Your task to perform on an android device: clear history in the chrome app Image 0: 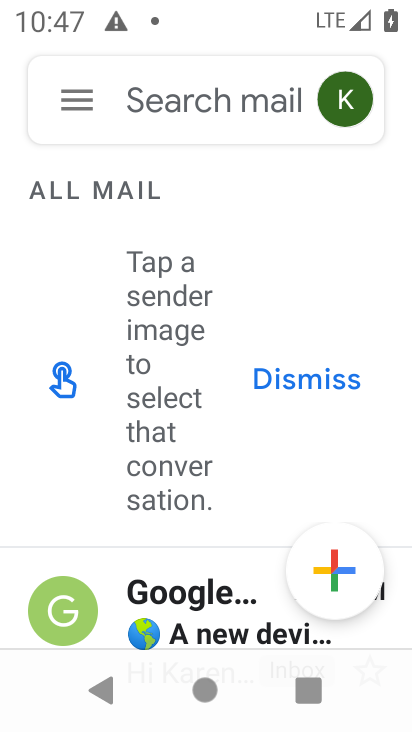
Step 0: press home button
Your task to perform on an android device: clear history in the chrome app Image 1: 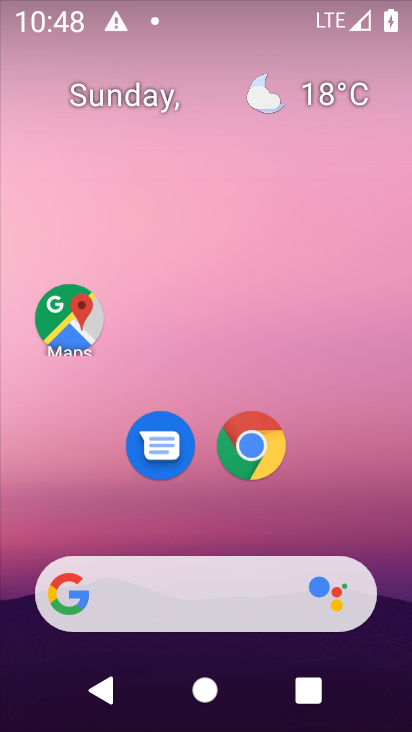
Step 1: click (240, 447)
Your task to perform on an android device: clear history in the chrome app Image 2: 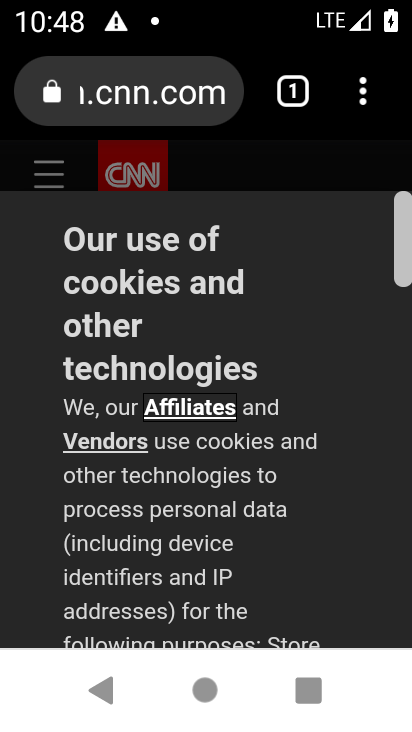
Step 2: drag from (360, 85) to (118, 291)
Your task to perform on an android device: clear history in the chrome app Image 3: 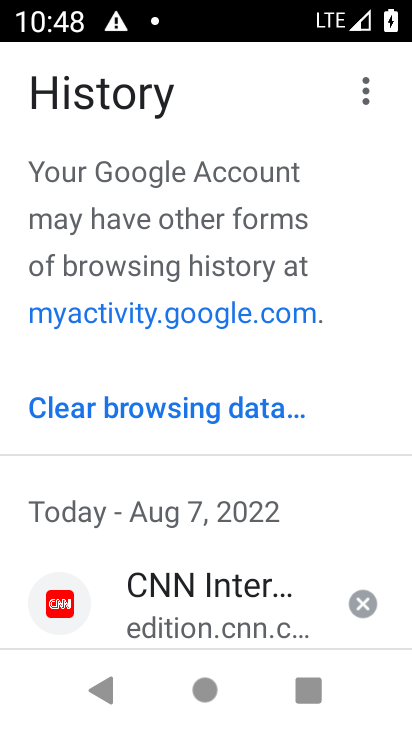
Step 3: click (157, 407)
Your task to perform on an android device: clear history in the chrome app Image 4: 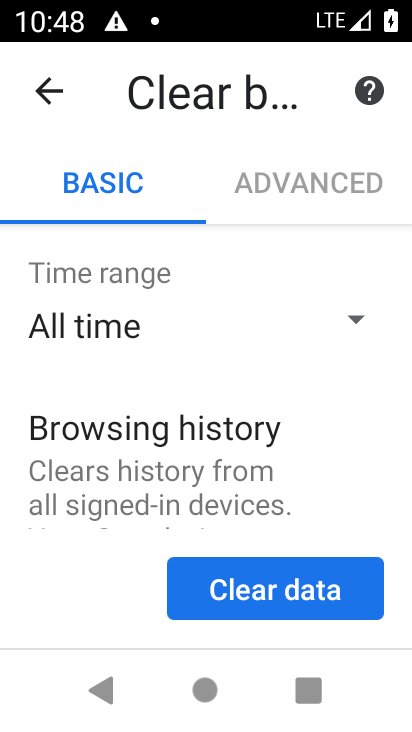
Step 4: click (300, 587)
Your task to perform on an android device: clear history in the chrome app Image 5: 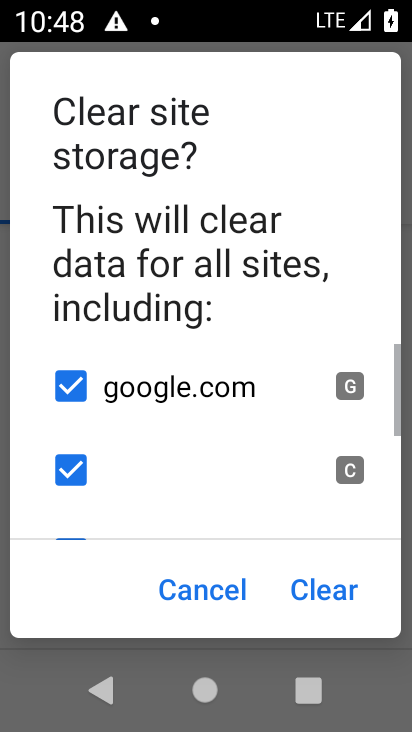
Step 5: click (321, 602)
Your task to perform on an android device: clear history in the chrome app Image 6: 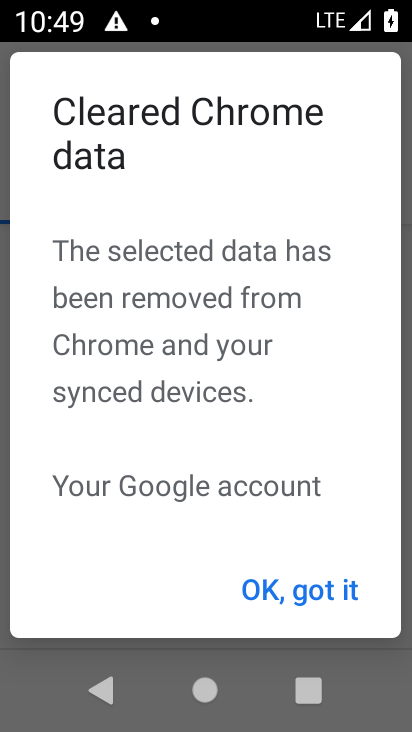
Step 6: click (307, 591)
Your task to perform on an android device: clear history in the chrome app Image 7: 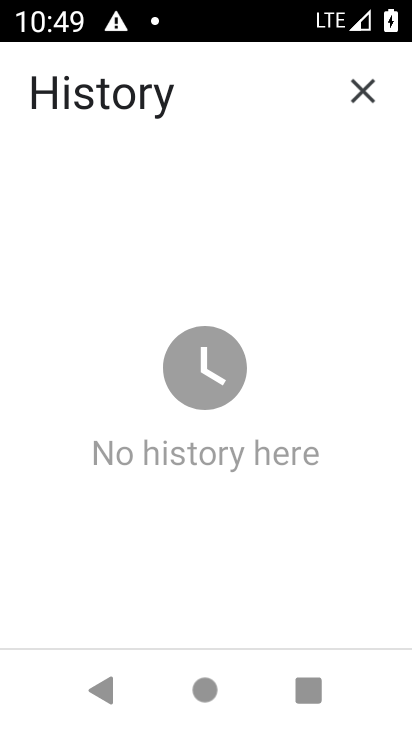
Step 7: task complete